Your task to perform on an android device: remove spam from my inbox in the gmail app Image 0: 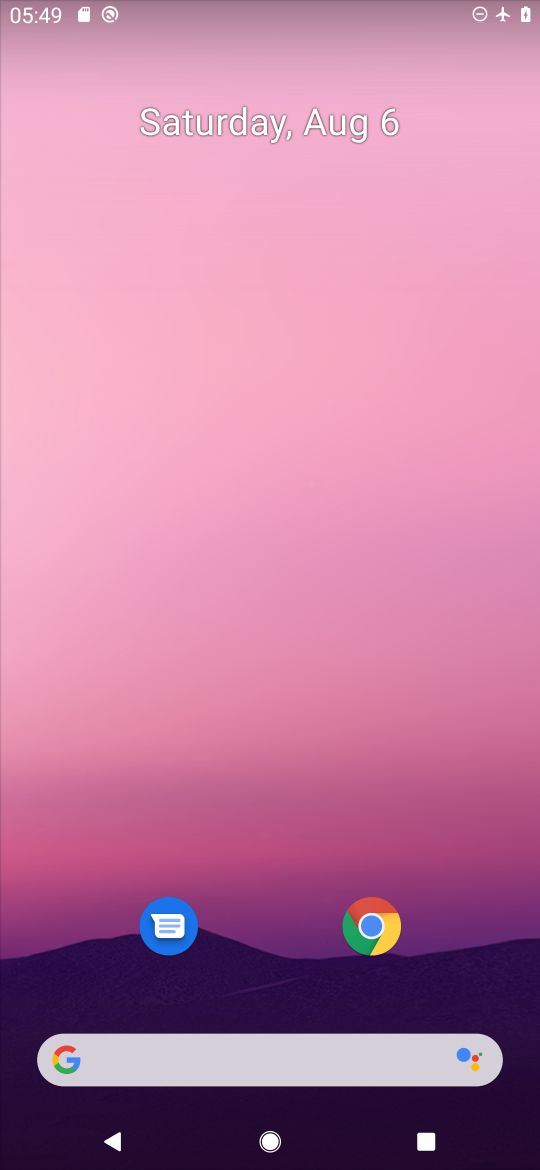
Step 0: drag from (279, 870) to (217, 281)
Your task to perform on an android device: remove spam from my inbox in the gmail app Image 1: 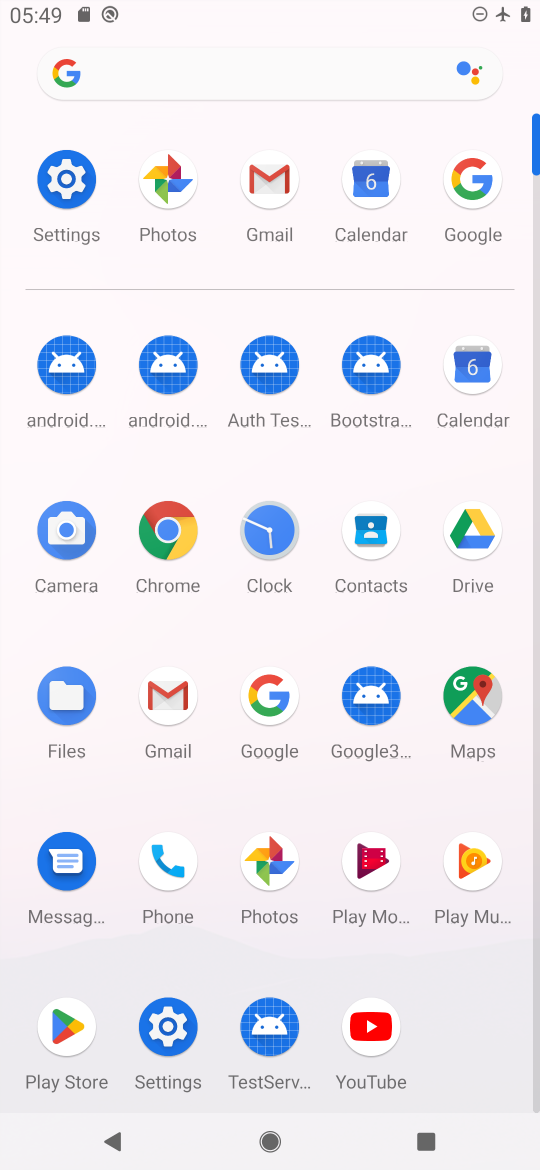
Step 1: click (256, 189)
Your task to perform on an android device: remove spam from my inbox in the gmail app Image 2: 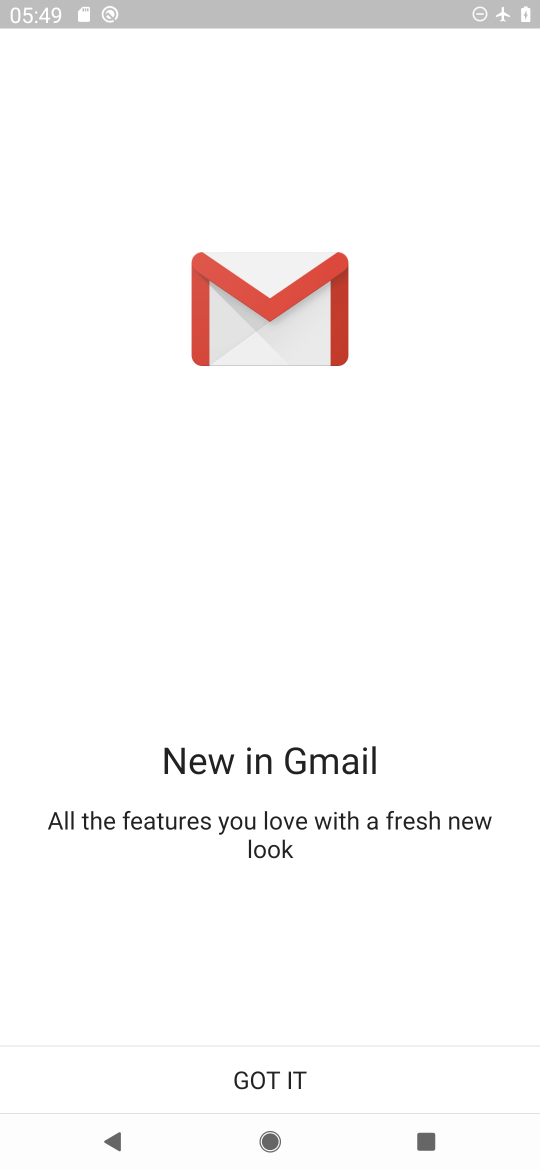
Step 2: click (369, 1057)
Your task to perform on an android device: remove spam from my inbox in the gmail app Image 3: 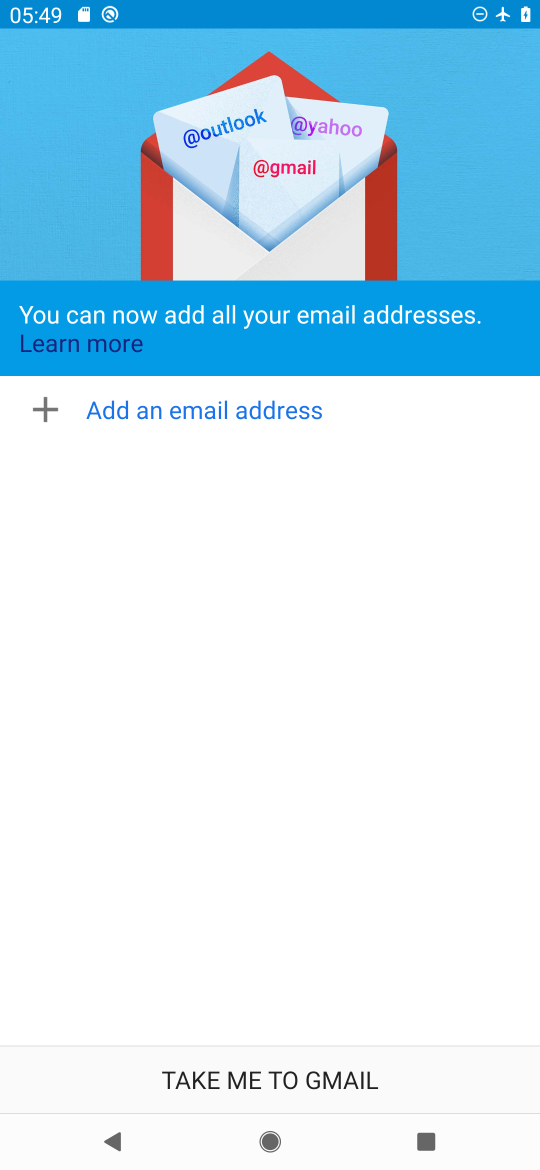
Step 3: task complete